Your task to perform on an android device: Set the phone to "Do not disturb". Image 0: 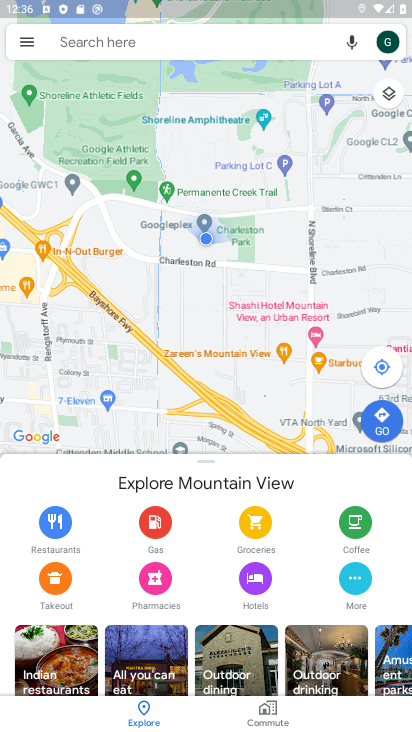
Step 0: drag from (327, 84) to (374, 516)
Your task to perform on an android device: Set the phone to "Do not disturb". Image 1: 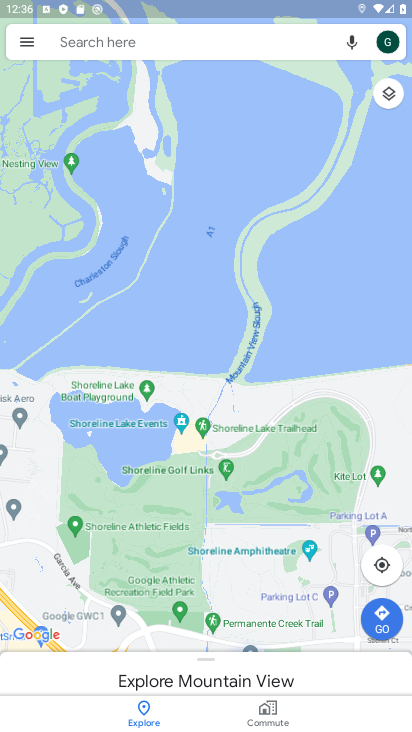
Step 1: drag from (248, 6) to (317, 569)
Your task to perform on an android device: Set the phone to "Do not disturb". Image 2: 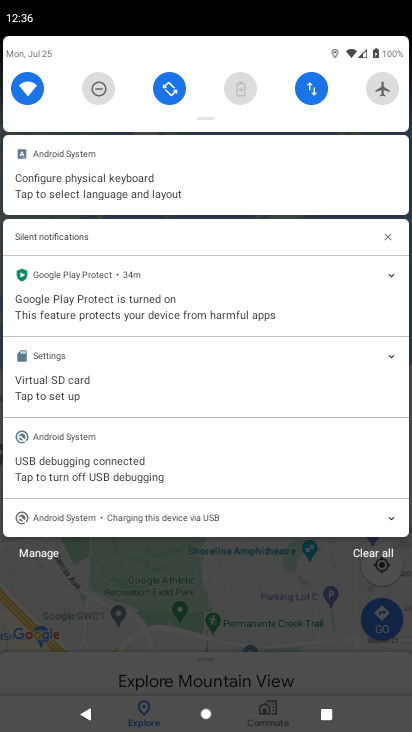
Step 2: click (91, 94)
Your task to perform on an android device: Set the phone to "Do not disturb". Image 3: 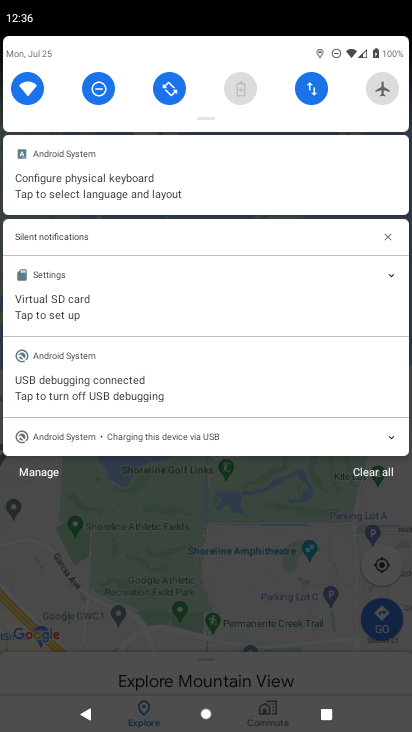
Step 3: task complete